Your task to perform on an android device: check storage Image 0: 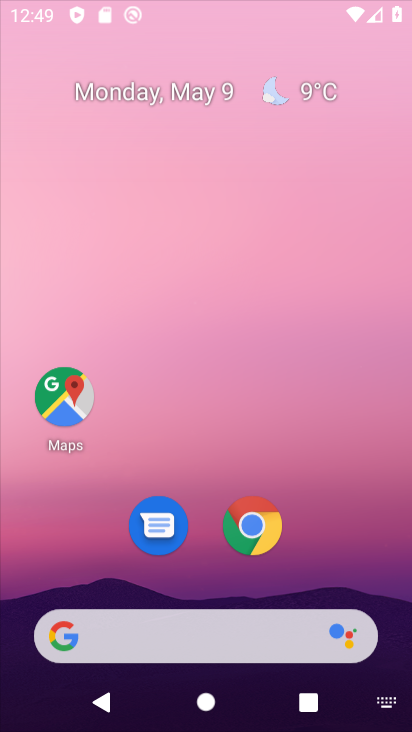
Step 0: click (352, 111)
Your task to perform on an android device: check storage Image 1: 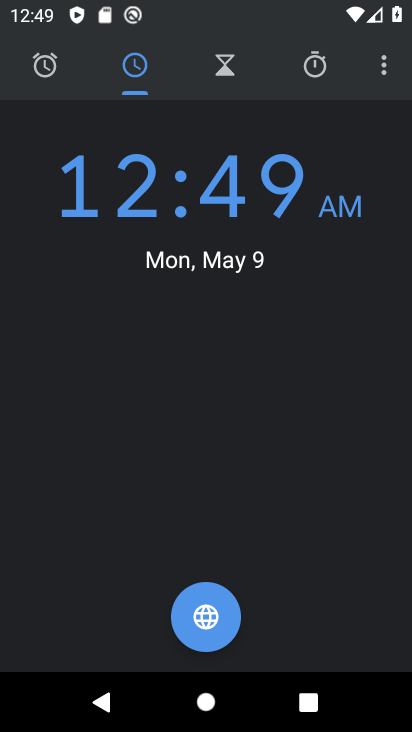
Step 1: press home button
Your task to perform on an android device: check storage Image 2: 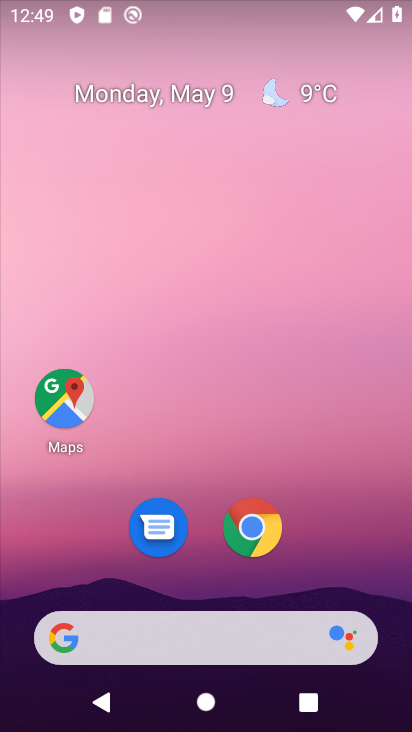
Step 2: drag from (344, 520) to (411, 131)
Your task to perform on an android device: check storage Image 3: 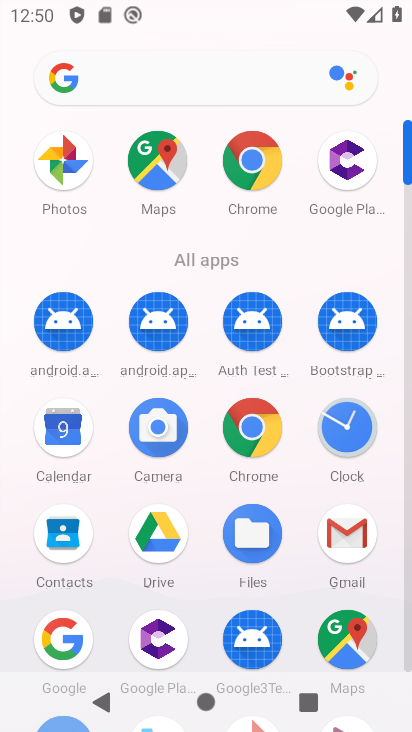
Step 3: drag from (179, 554) to (216, 167)
Your task to perform on an android device: check storage Image 4: 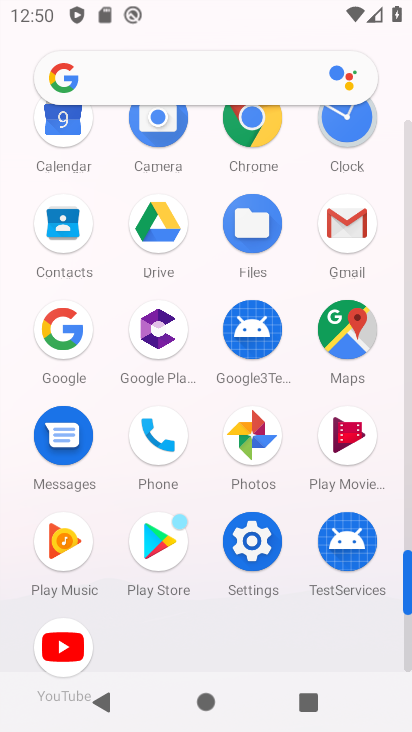
Step 4: click (265, 551)
Your task to perform on an android device: check storage Image 5: 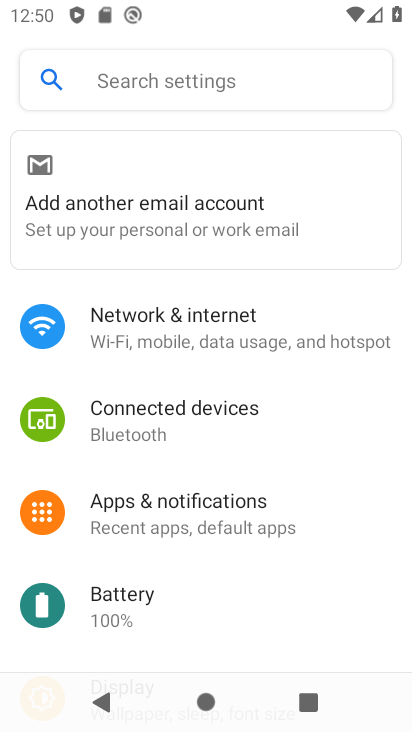
Step 5: drag from (230, 570) to (252, 234)
Your task to perform on an android device: check storage Image 6: 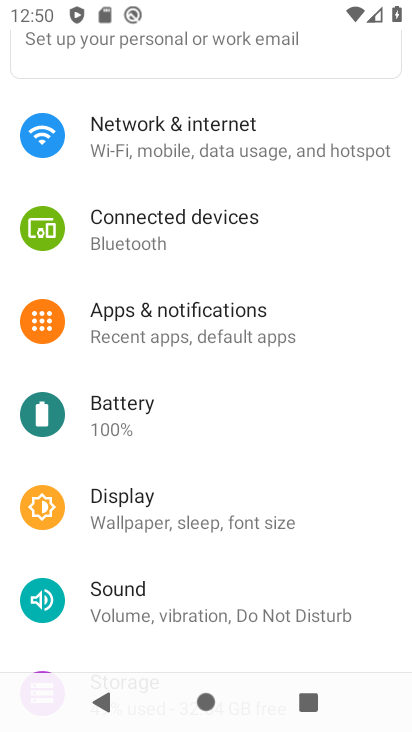
Step 6: drag from (135, 615) to (179, 349)
Your task to perform on an android device: check storage Image 7: 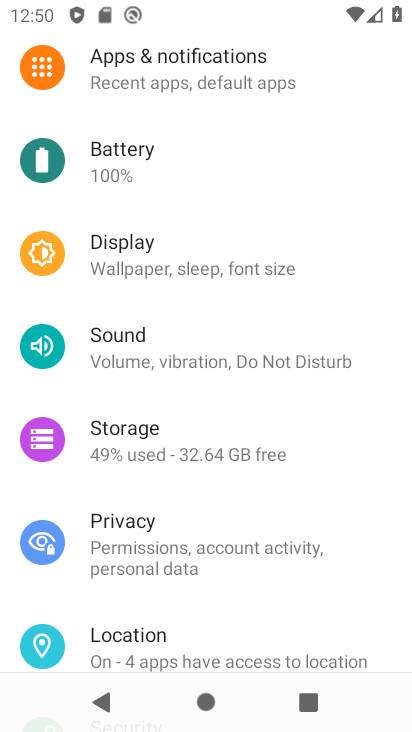
Step 7: click (140, 447)
Your task to perform on an android device: check storage Image 8: 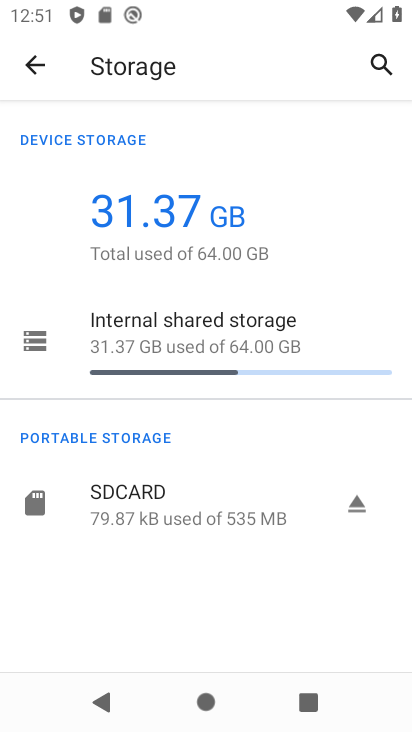
Step 8: task complete